Your task to perform on an android device: toggle pop-ups in chrome Image 0: 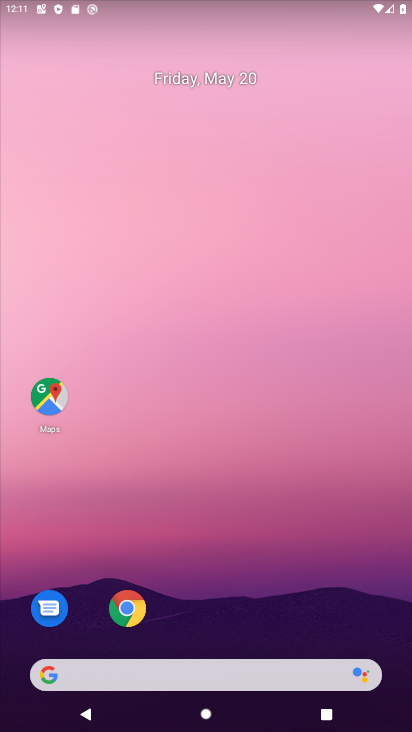
Step 0: drag from (274, 597) to (274, 163)
Your task to perform on an android device: toggle pop-ups in chrome Image 1: 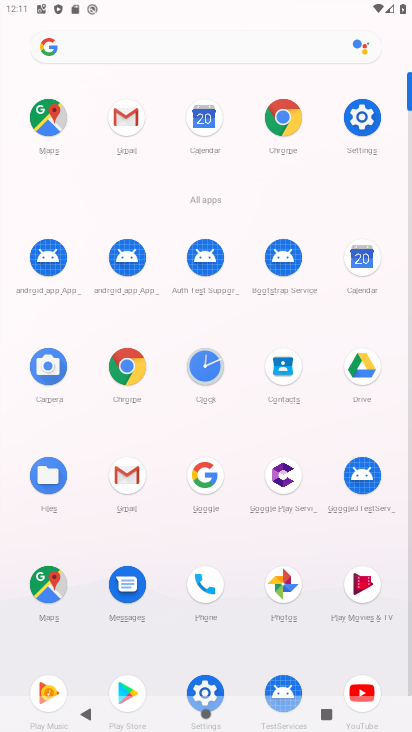
Step 1: click (136, 381)
Your task to perform on an android device: toggle pop-ups in chrome Image 2: 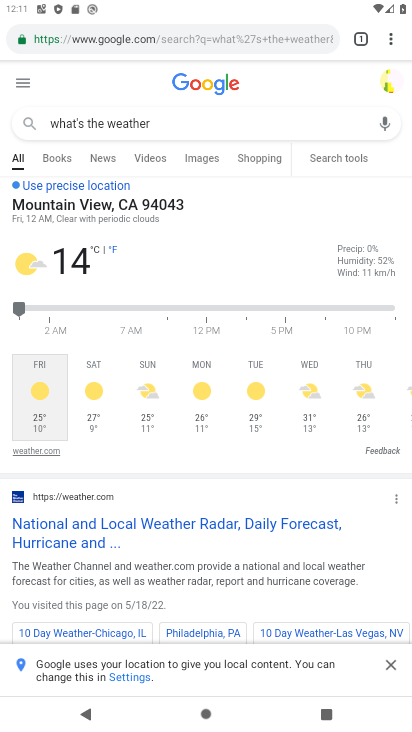
Step 2: drag from (381, 38) to (271, 433)
Your task to perform on an android device: toggle pop-ups in chrome Image 3: 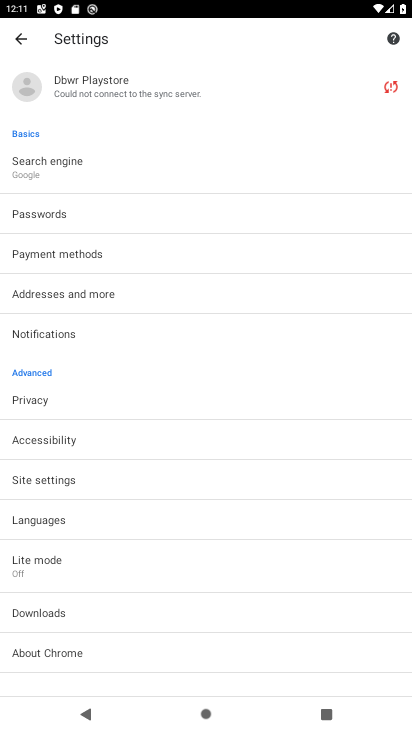
Step 3: drag from (188, 651) to (205, 399)
Your task to perform on an android device: toggle pop-ups in chrome Image 4: 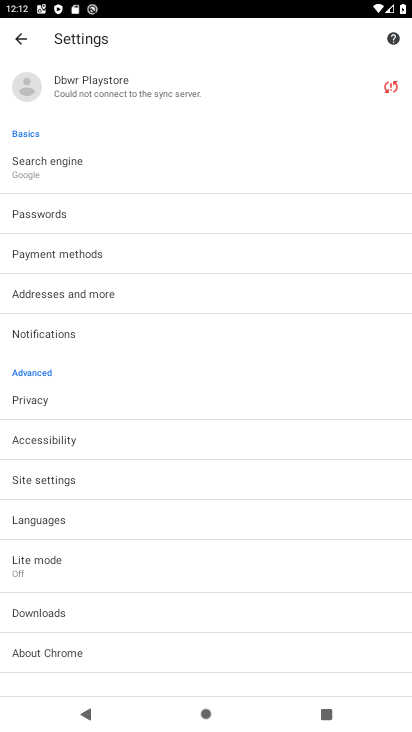
Step 4: click (123, 473)
Your task to perform on an android device: toggle pop-ups in chrome Image 5: 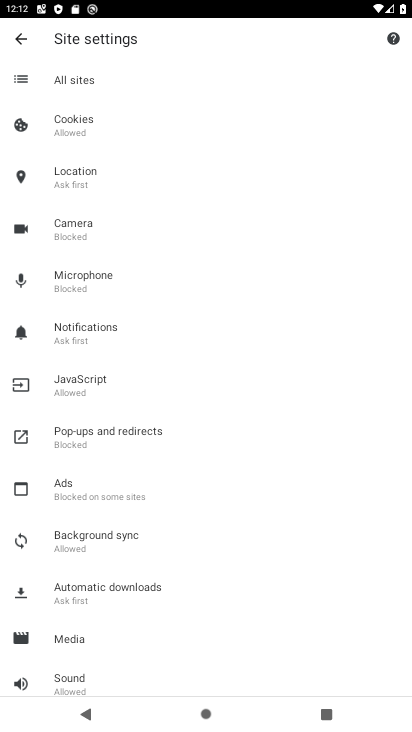
Step 5: click (188, 430)
Your task to perform on an android device: toggle pop-ups in chrome Image 6: 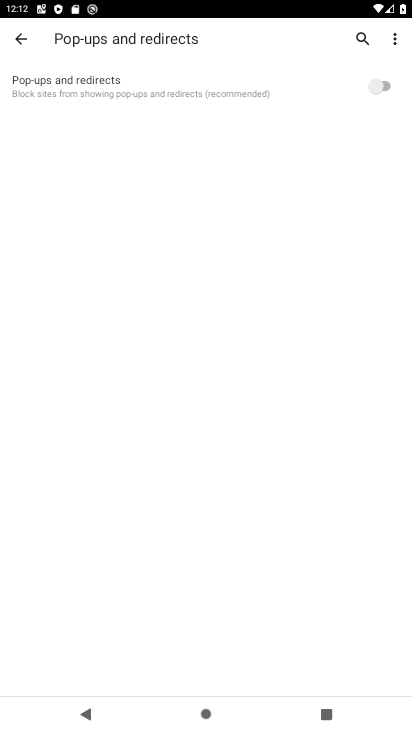
Step 6: click (390, 84)
Your task to perform on an android device: toggle pop-ups in chrome Image 7: 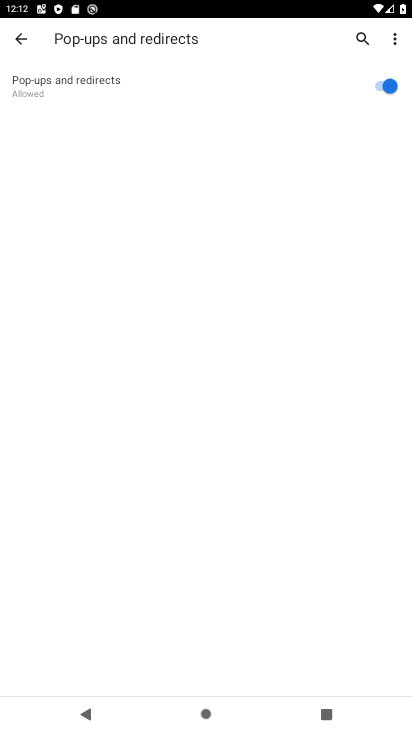
Step 7: task complete